Your task to perform on an android device: set an alarm Image 0: 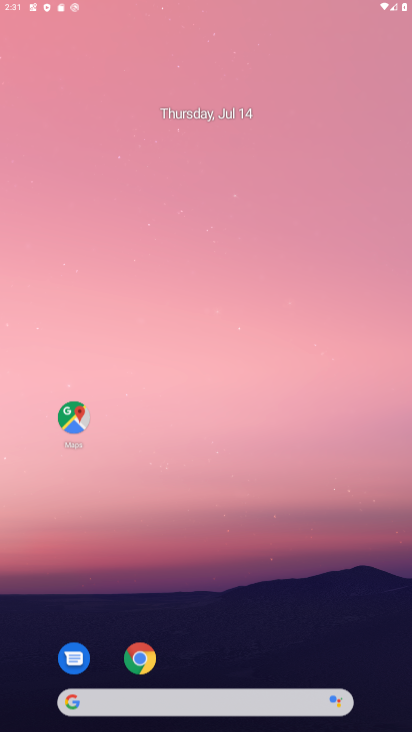
Step 0: press home button
Your task to perform on an android device: set an alarm Image 1: 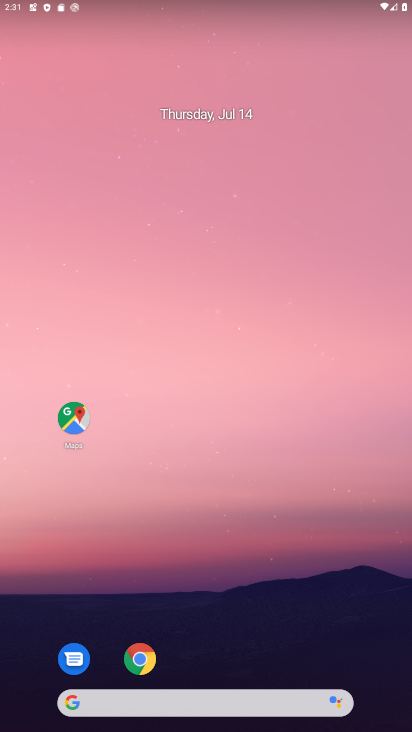
Step 1: drag from (232, 660) to (236, 187)
Your task to perform on an android device: set an alarm Image 2: 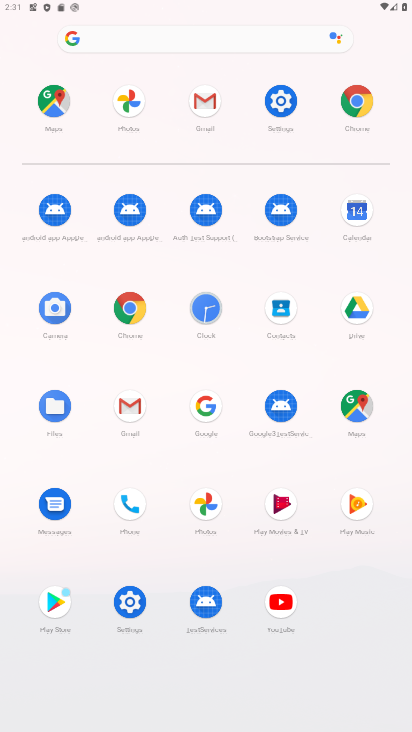
Step 2: click (212, 310)
Your task to perform on an android device: set an alarm Image 3: 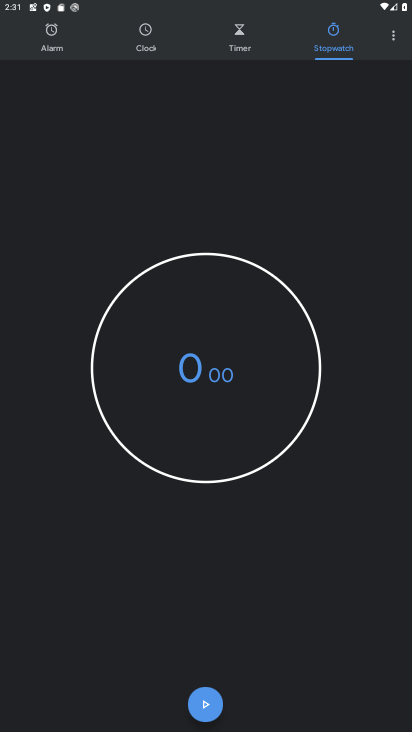
Step 3: click (57, 29)
Your task to perform on an android device: set an alarm Image 4: 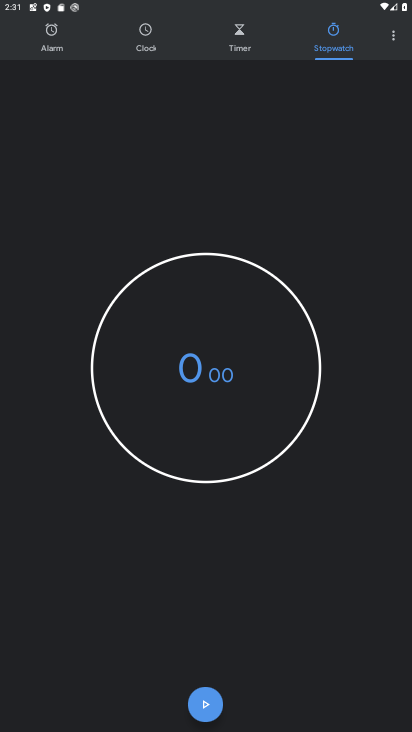
Step 4: click (57, 37)
Your task to perform on an android device: set an alarm Image 5: 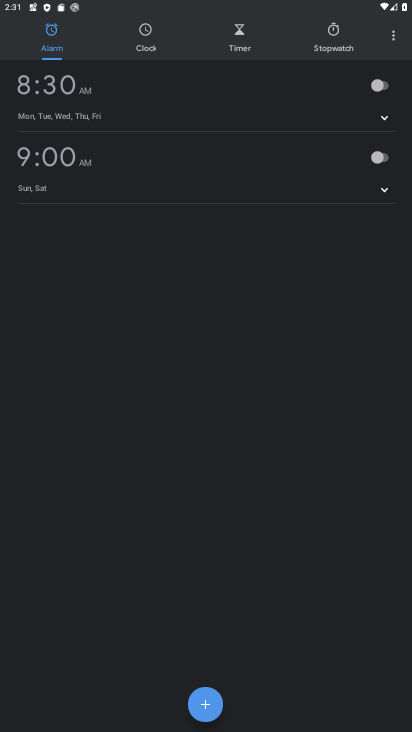
Step 5: click (380, 92)
Your task to perform on an android device: set an alarm Image 6: 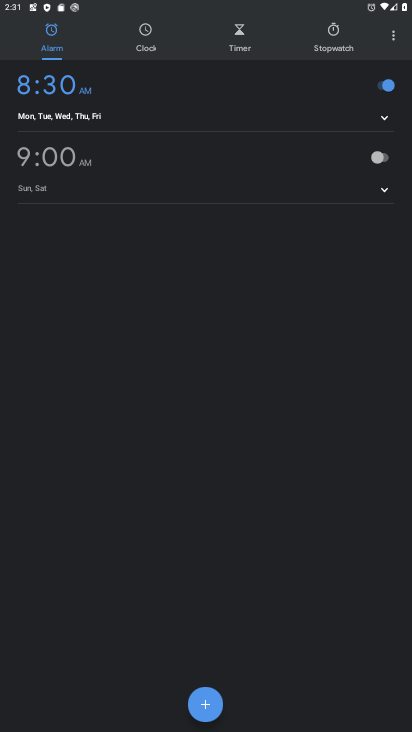
Step 6: task complete